Your task to perform on an android device: turn off priority inbox in the gmail app Image 0: 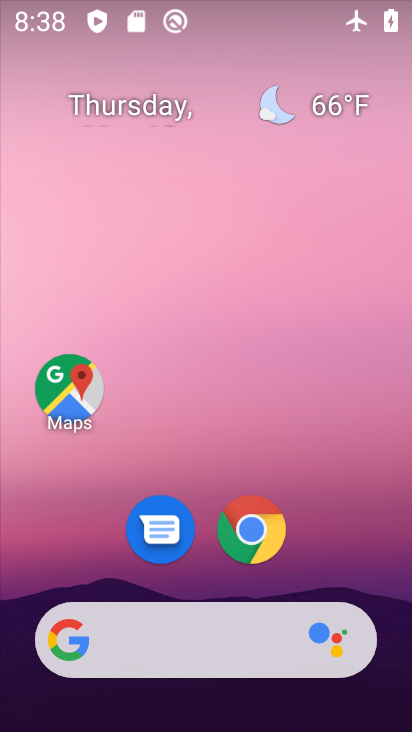
Step 0: drag from (317, 551) to (257, 53)
Your task to perform on an android device: turn off priority inbox in the gmail app Image 1: 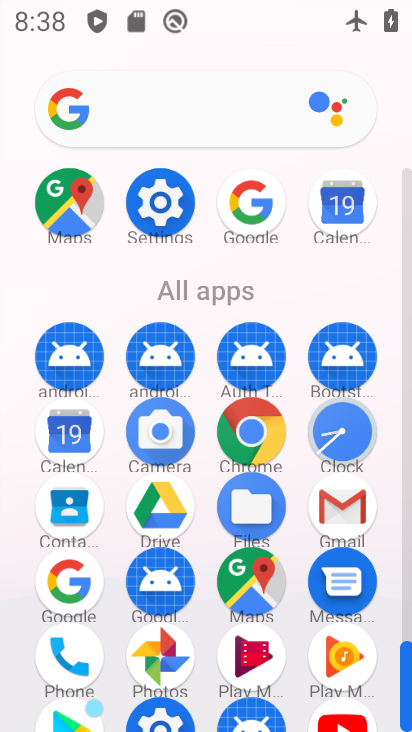
Step 1: click (343, 504)
Your task to perform on an android device: turn off priority inbox in the gmail app Image 2: 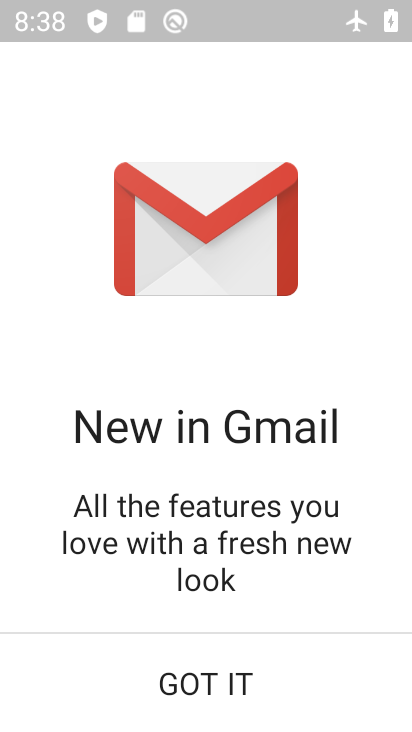
Step 2: click (187, 677)
Your task to perform on an android device: turn off priority inbox in the gmail app Image 3: 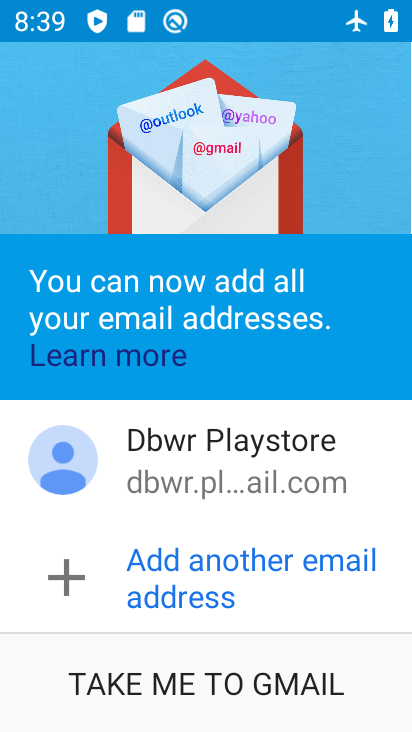
Step 3: click (256, 677)
Your task to perform on an android device: turn off priority inbox in the gmail app Image 4: 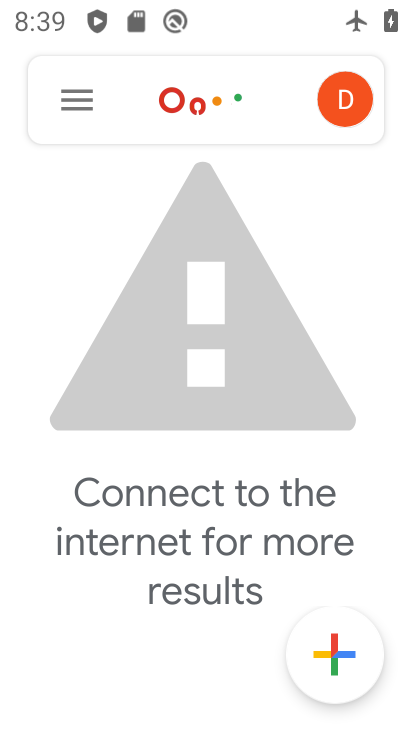
Step 4: click (79, 95)
Your task to perform on an android device: turn off priority inbox in the gmail app Image 5: 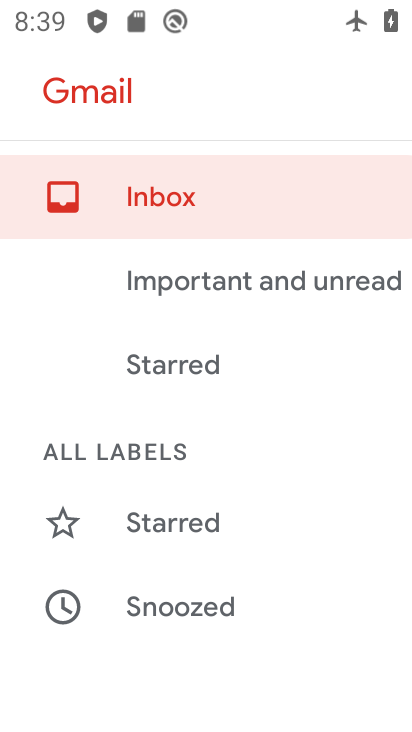
Step 5: drag from (149, 483) to (199, 386)
Your task to perform on an android device: turn off priority inbox in the gmail app Image 6: 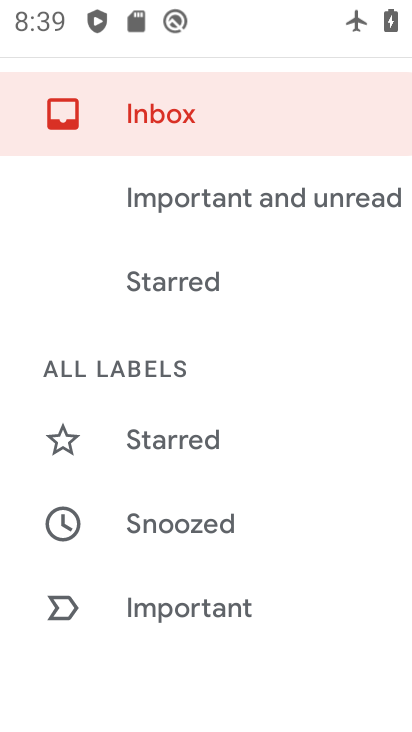
Step 6: drag from (167, 564) to (233, 428)
Your task to perform on an android device: turn off priority inbox in the gmail app Image 7: 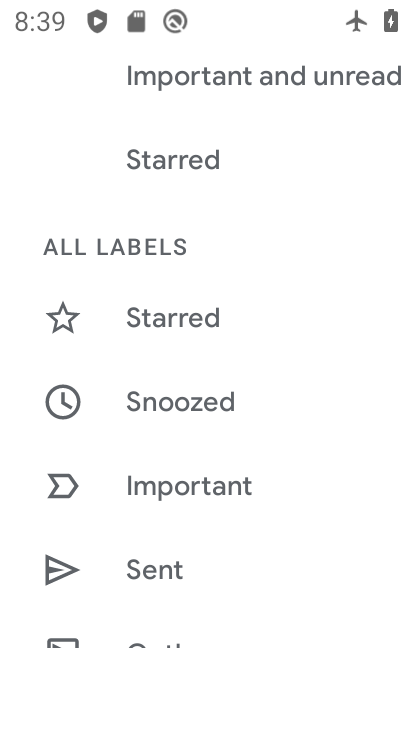
Step 7: drag from (158, 533) to (262, 408)
Your task to perform on an android device: turn off priority inbox in the gmail app Image 8: 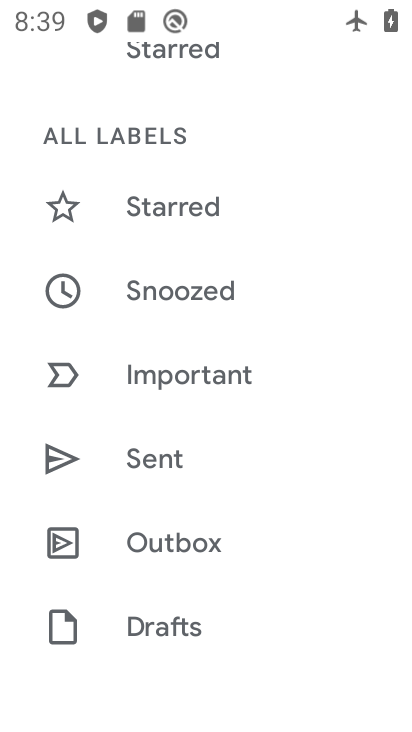
Step 8: drag from (185, 502) to (246, 393)
Your task to perform on an android device: turn off priority inbox in the gmail app Image 9: 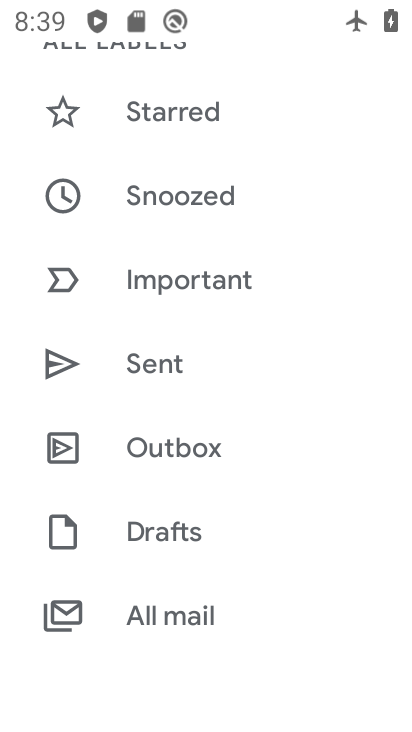
Step 9: drag from (160, 559) to (247, 420)
Your task to perform on an android device: turn off priority inbox in the gmail app Image 10: 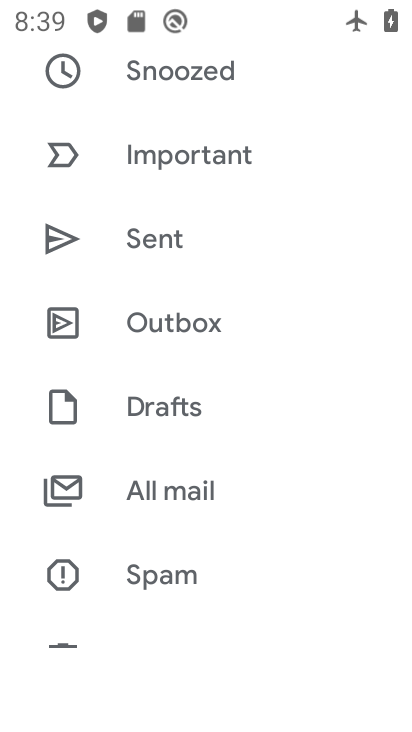
Step 10: drag from (153, 467) to (220, 349)
Your task to perform on an android device: turn off priority inbox in the gmail app Image 11: 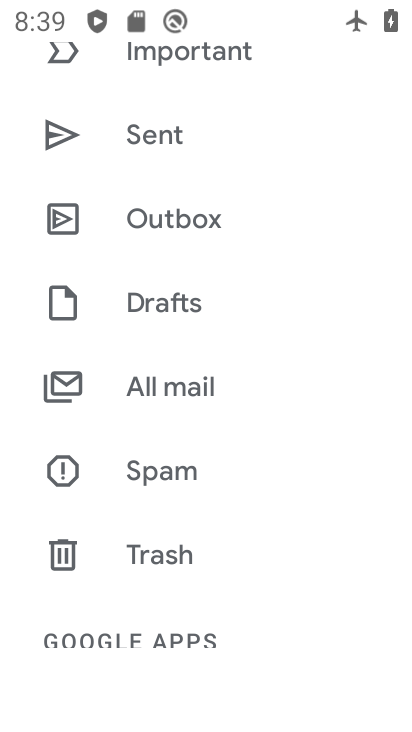
Step 11: drag from (142, 513) to (245, 372)
Your task to perform on an android device: turn off priority inbox in the gmail app Image 12: 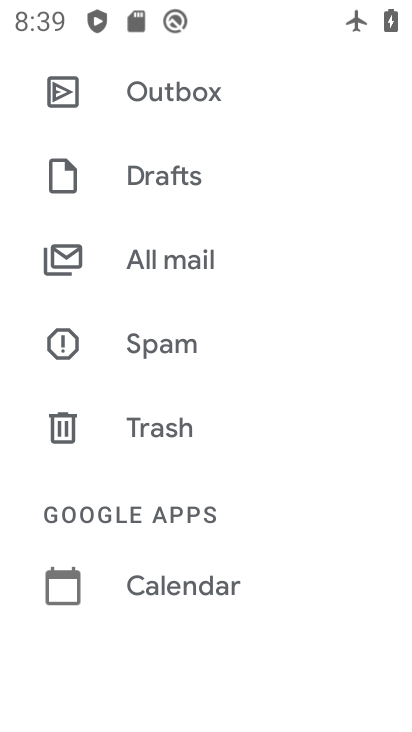
Step 12: drag from (176, 545) to (226, 439)
Your task to perform on an android device: turn off priority inbox in the gmail app Image 13: 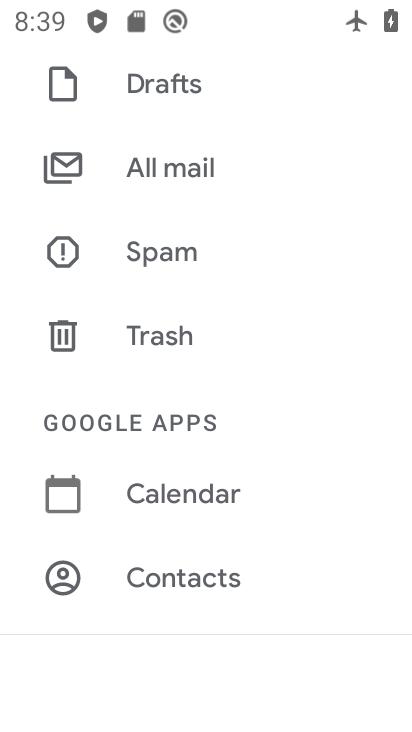
Step 13: drag from (162, 547) to (199, 415)
Your task to perform on an android device: turn off priority inbox in the gmail app Image 14: 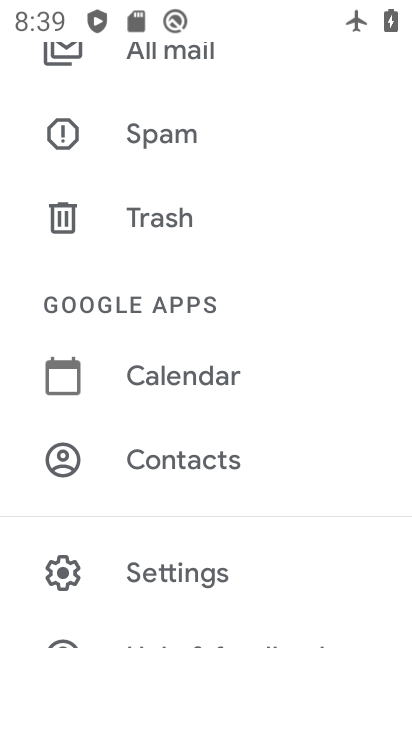
Step 14: click (177, 574)
Your task to perform on an android device: turn off priority inbox in the gmail app Image 15: 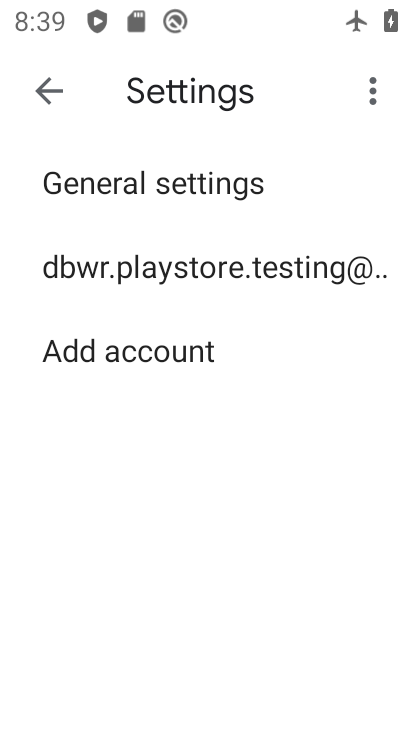
Step 15: click (227, 273)
Your task to perform on an android device: turn off priority inbox in the gmail app Image 16: 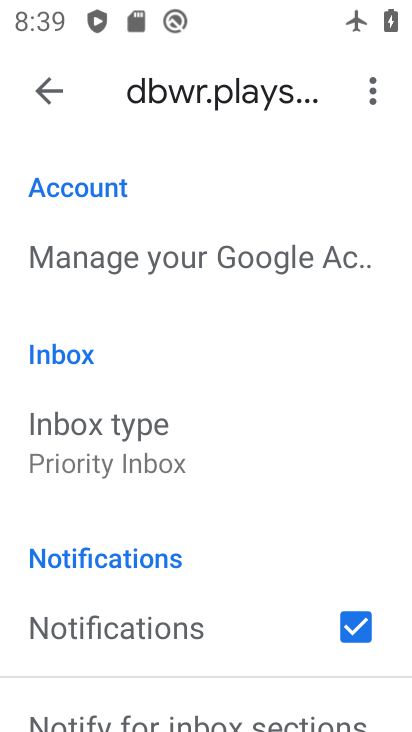
Step 16: click (128, 463)
Your task to perform on an android device: turn off priority inbox in the gmail app Image 17: 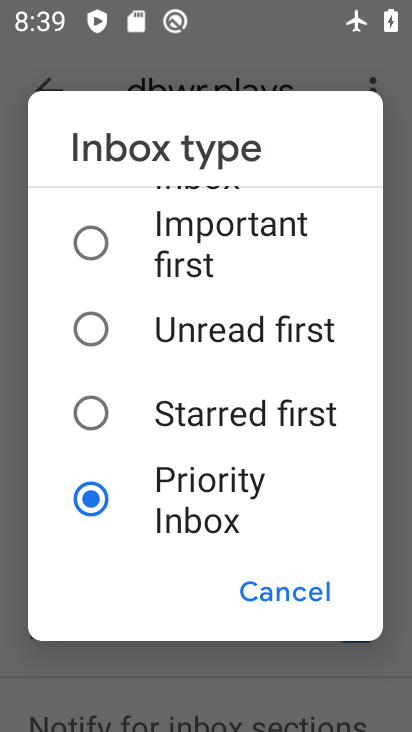
Step 17: click (104, 323)
Your task to perform on an android device: turn off priority inbox in the gmail app Image 18: 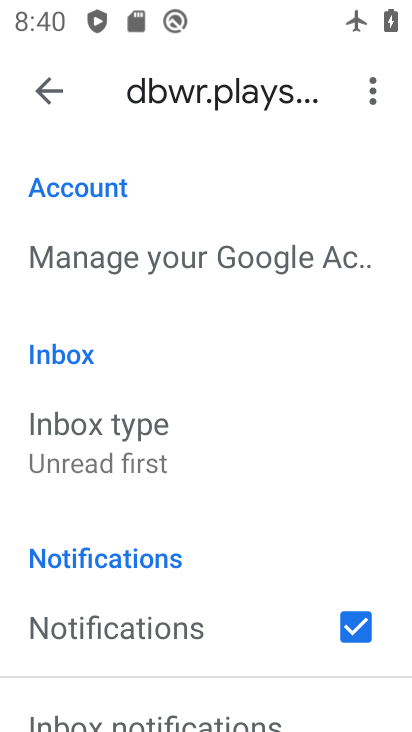
Step 18: task complete